Your task to perform on an android device: Open sound settings Image 0: 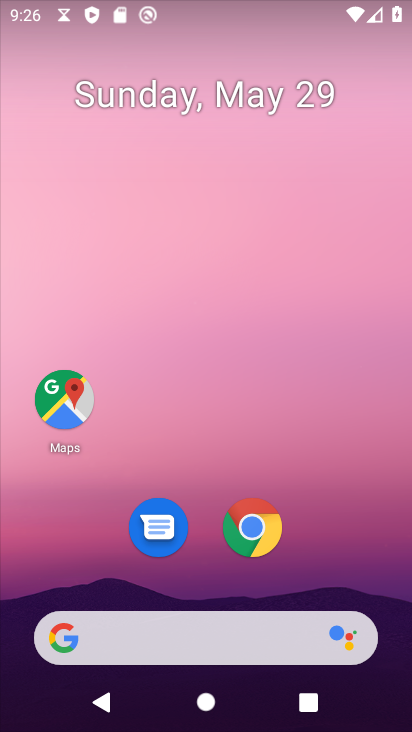
Step 0: press home button
Your task to perform on an android device: Open sound settings Image 1: 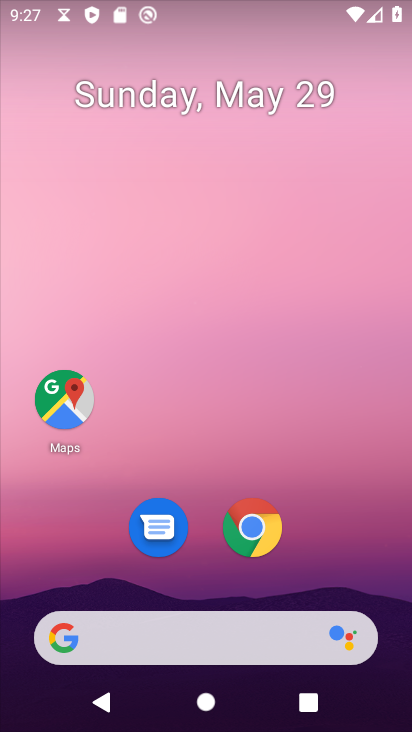
Step 1: drag from (199, 639) to (347, 97)
Your task to perform on an android device: Open sound settings Image 2: 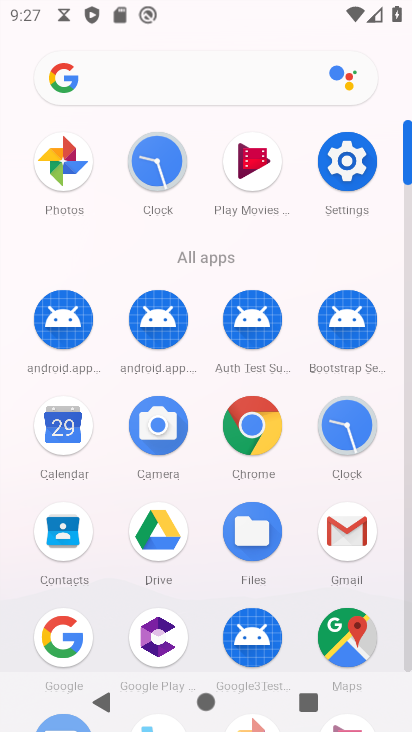
Step 2: click (354, 165)
Your task to perform on an android device: Open sound settings Image 3: 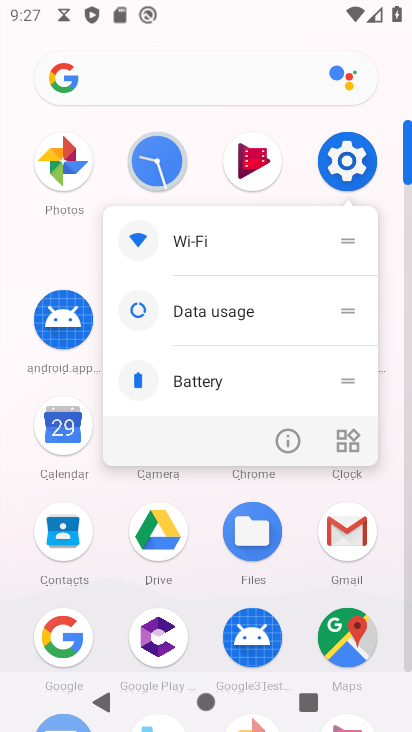
Step 3: click (346, 157)
Your task to perform on an android device: Open sound settings Image 4: 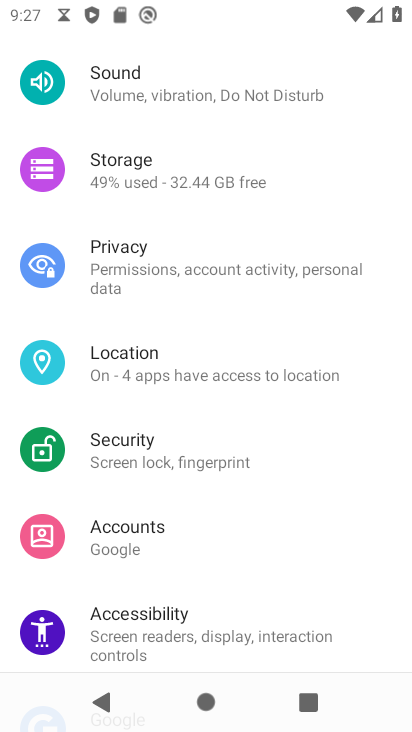
Step 4: click (127, 88)
Your task to perform on an android device: Open sound settings Image 5: 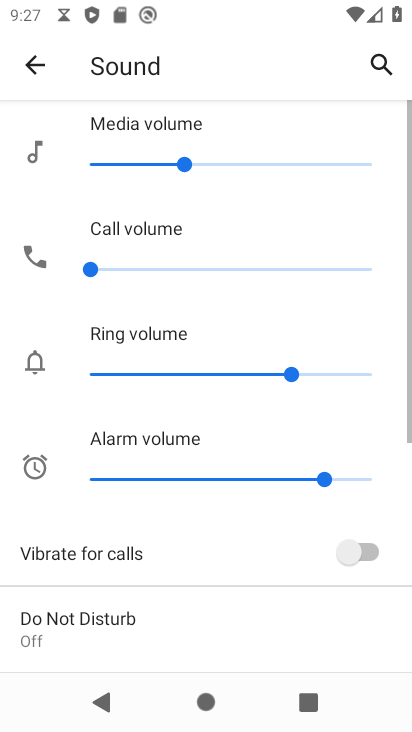
Step 5: task complete